Your task to perform on an android device: turn off translation in the chrome app Image 0: 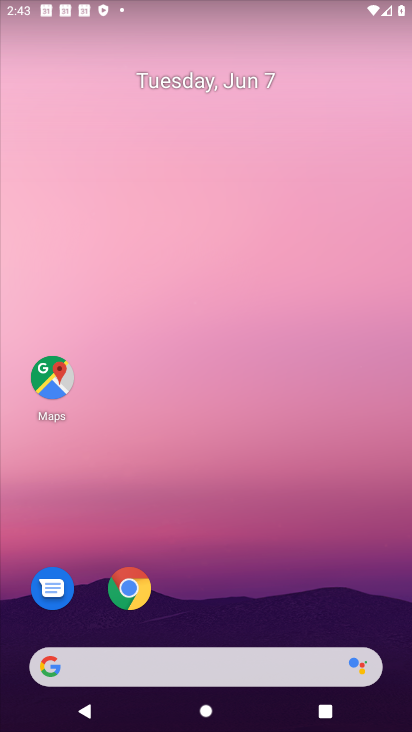
Step 0: click (138, 591)
Your task to perform on an android device: turn off translation in the chrome app Image 1: 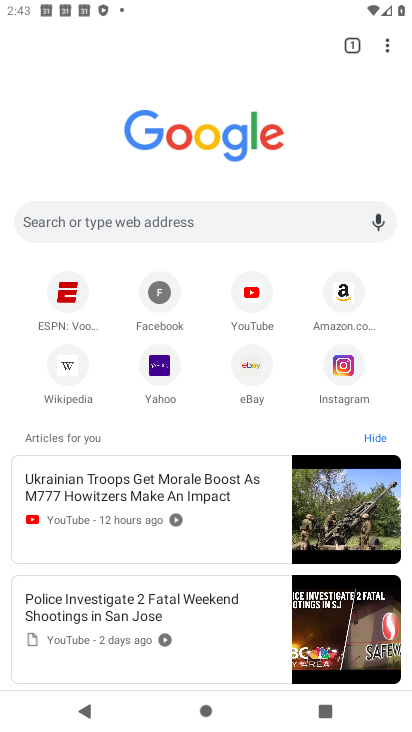
Step 1: task complete